Your task to perform on an android device: Add energizer triple a to the cart on amazon.com Image 0: 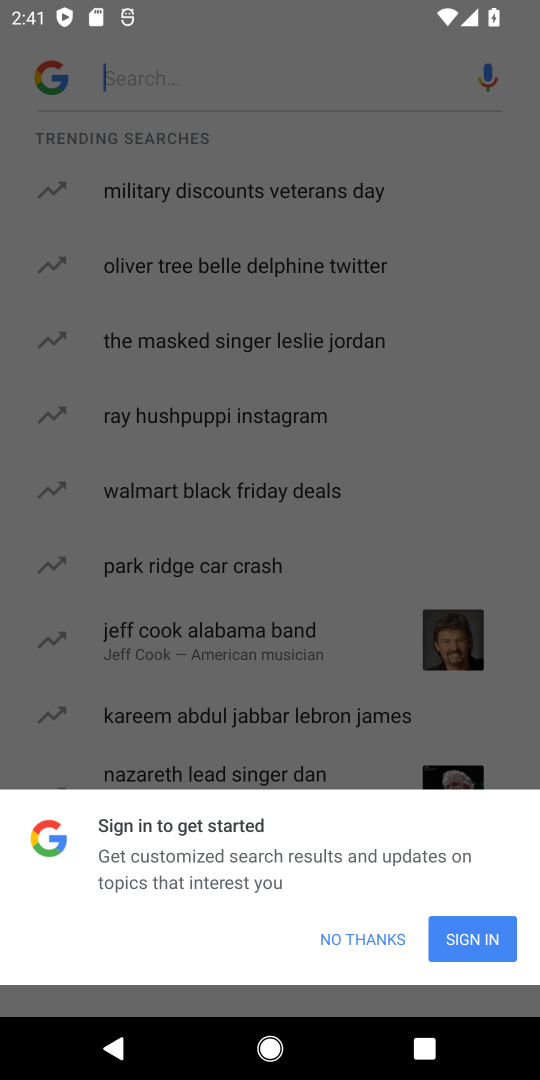
Step 0: press home button
Your task to perform on an android device: Add energizer triple a to the cart on amazon.com Image 1: 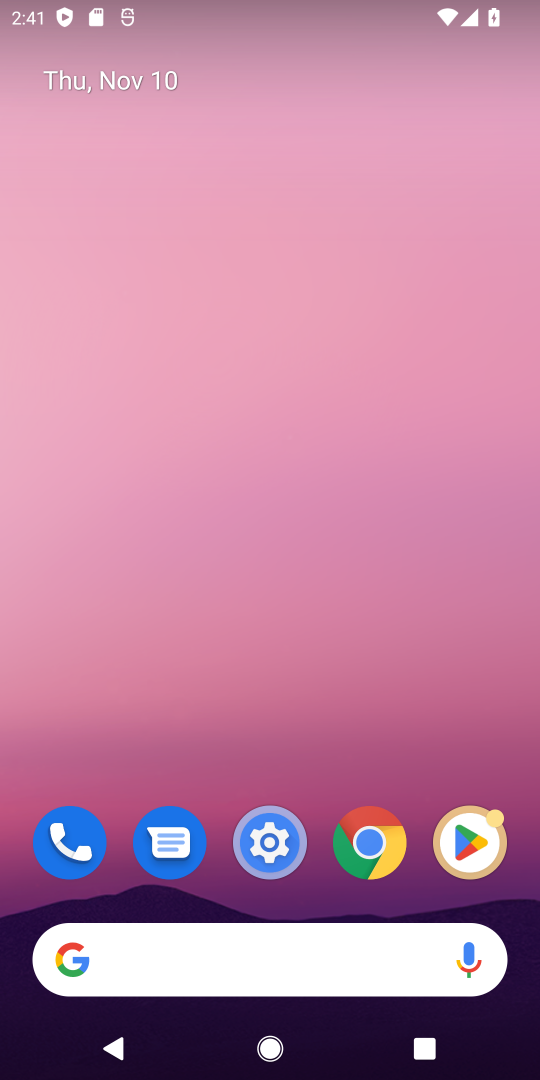
Step 1: click (114, 955)
Your task to perform on an android device: Add energizer triple a to the cart on amazon.com Image 2: 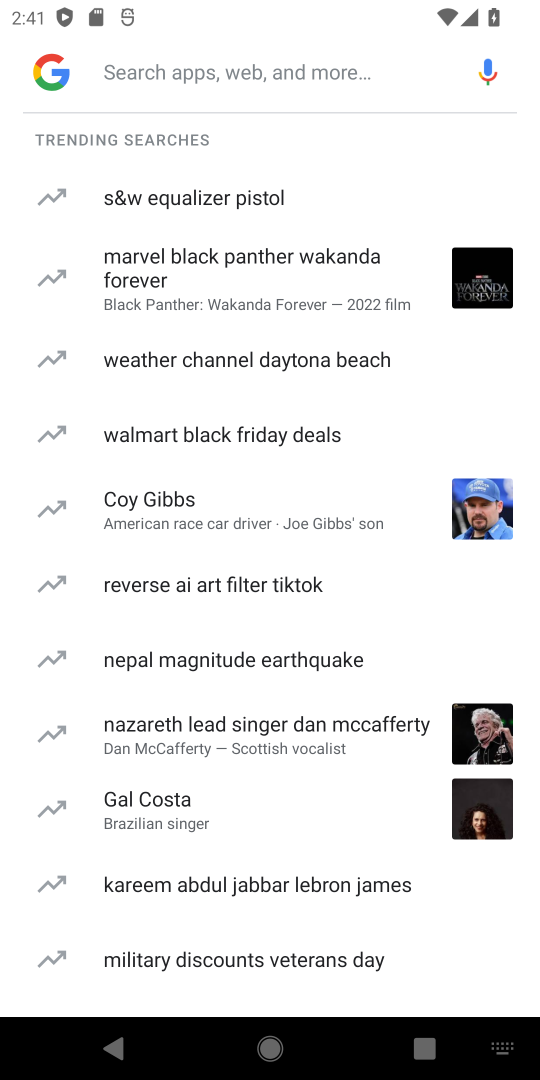
Step 2: type "amazon.com"
Your task to perform on an android device: Add energizer triple a to the cart on amazon.com Image 3: 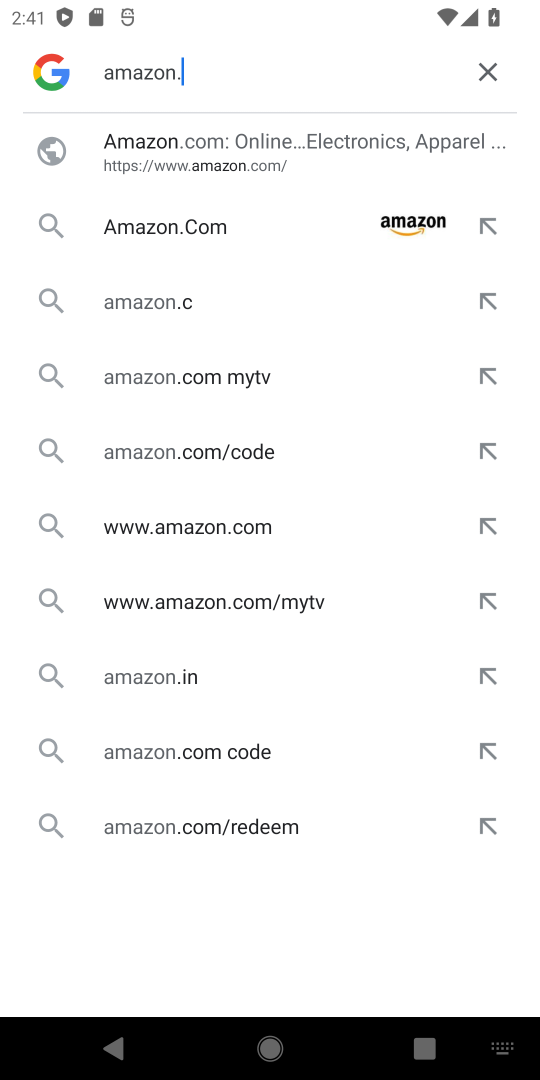
Step 3: press enter
Your task to perform on an android device: Add energizer triple a to the cart on amazon.com Image 4: 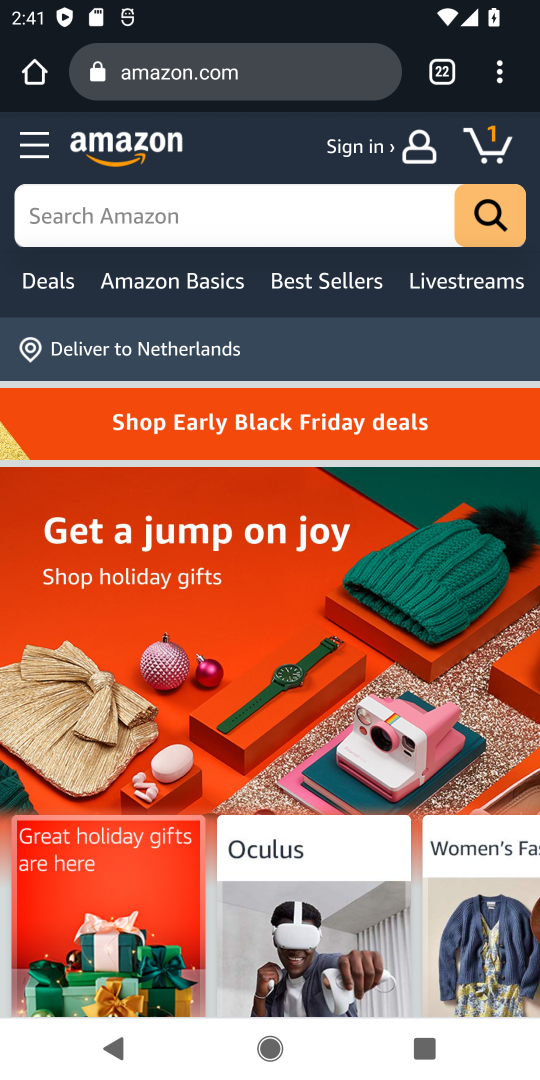
Step 4: click (71, 218)
Your task to perform on an android device: Add energizer triple a to the cart on amazon.com Image 5: 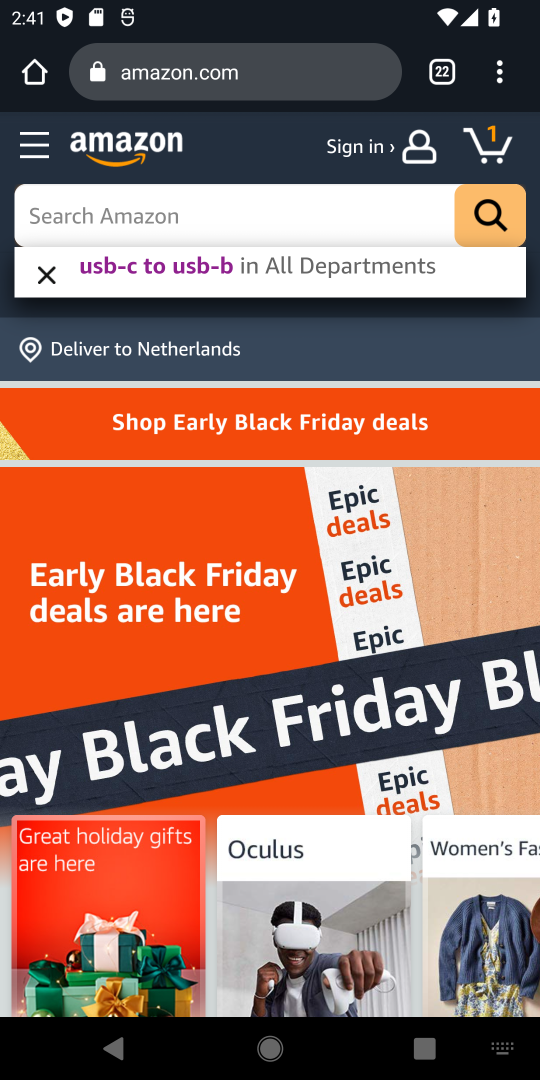
Step 5: type "energizer triple a"
Your task to perform on an android device: Add energizer triple a to the cart on amazon.com Image 6: 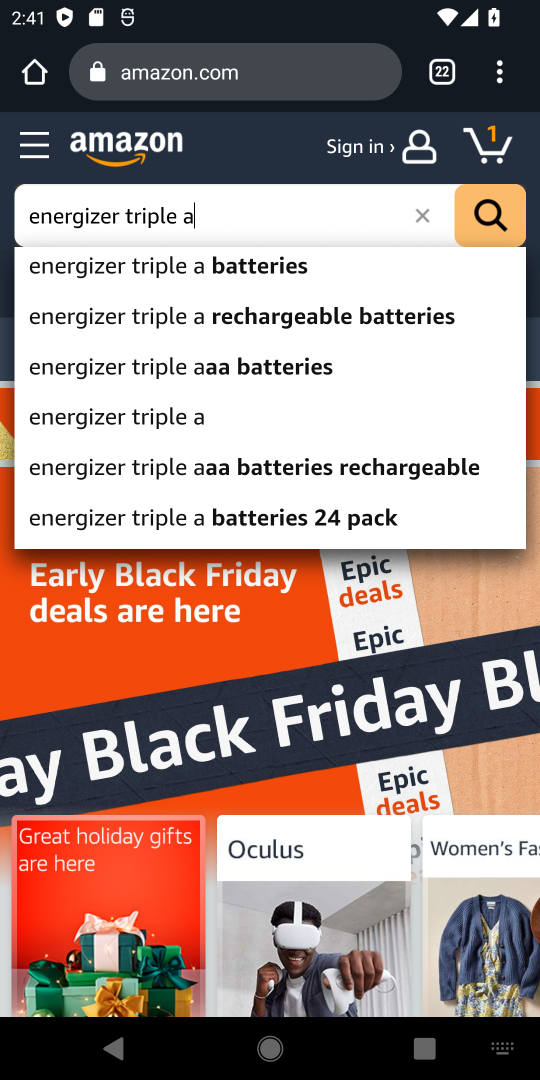
Step 6: click (494, 211)
Your task to perform on an android device: Add energizer triple a to the cart on amazon.com Image 7: 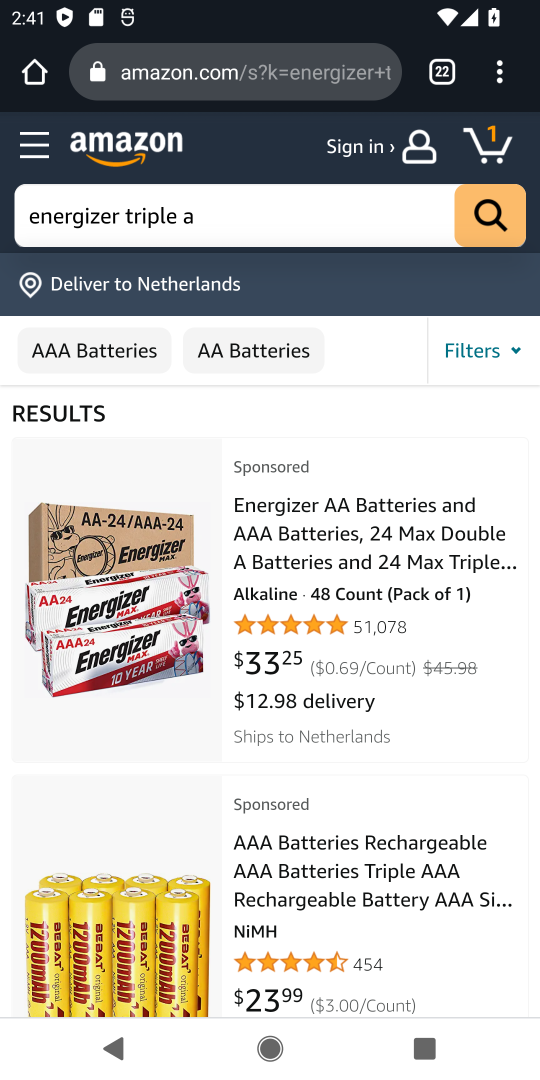
Step 7: click (315, 547)
Your task to perform on an android device: Add energizer triple a to the cart on amazon.com Image 8: 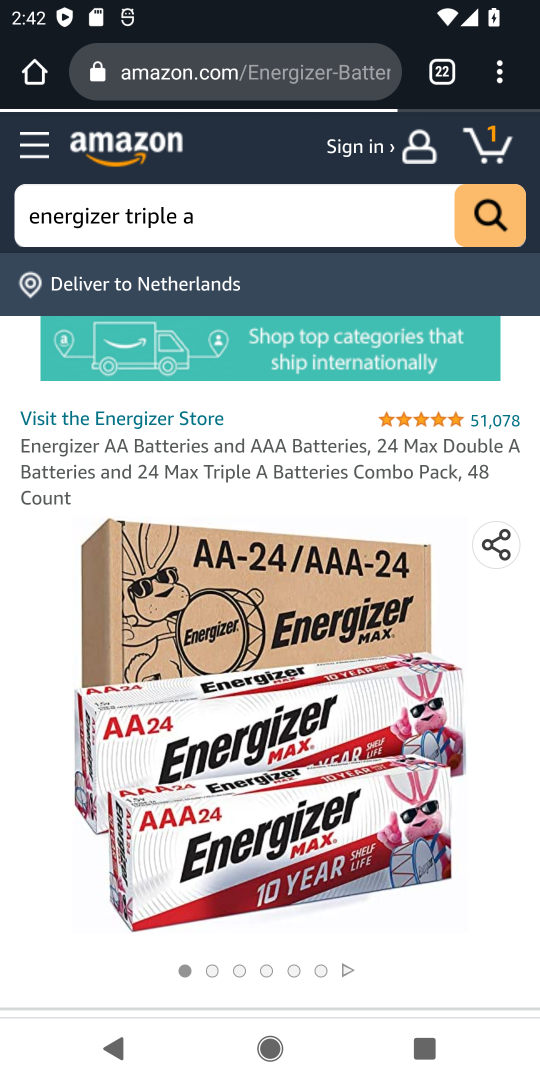
Step 8: drag from (314, 762) to (307, 404)
Your task to perform on an android device: Add energizer triple a to the cart on amazon.com Image 9: 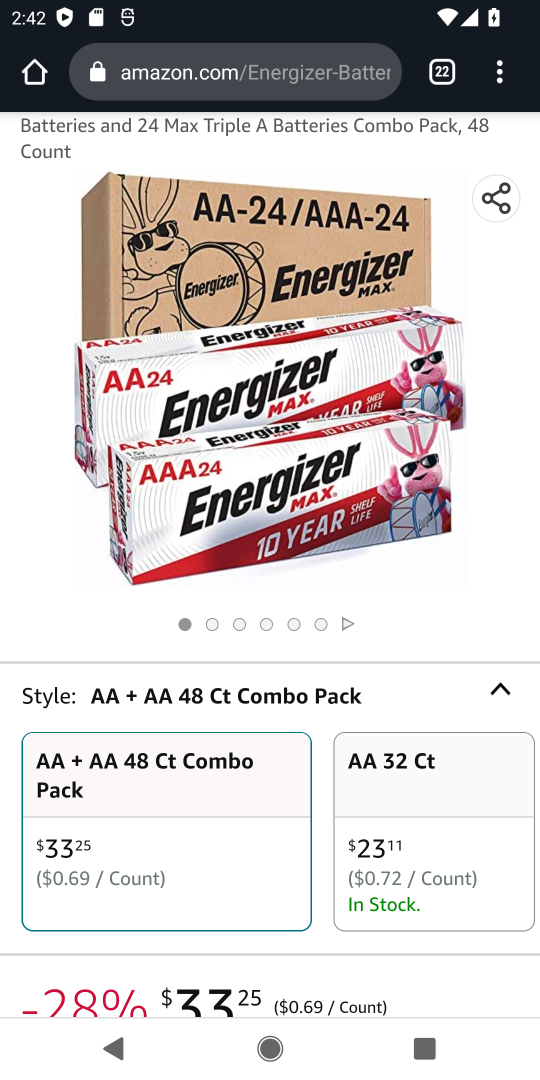
Step 9: drag from (235, 825) to (268, 276)
Your task to perform on an android device: Add energizer triple a to the cart on amazon.com Image 10: 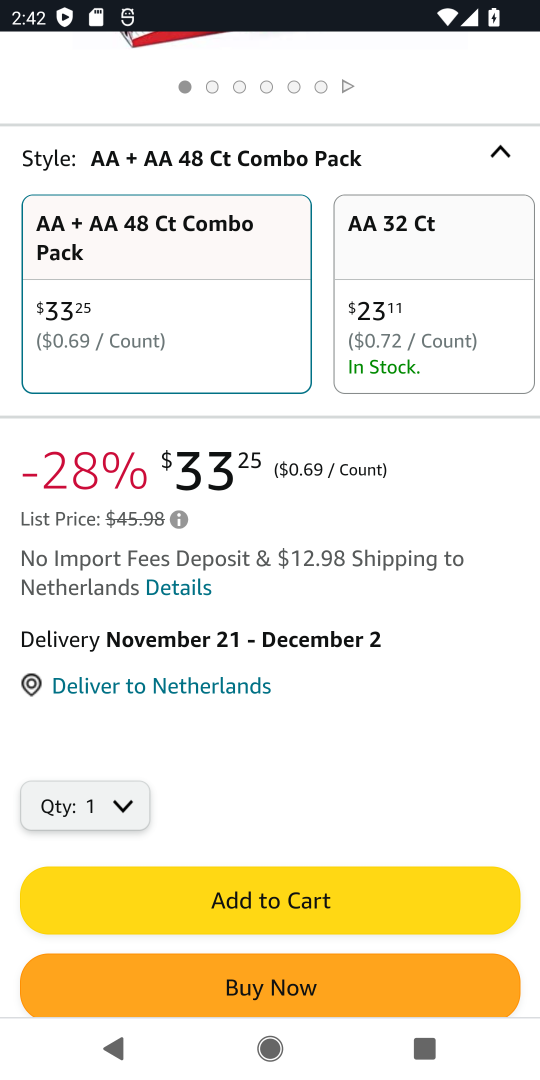
Step 10: drag from (349, 772) to (350, 295)
Your task to perform on an android device: Add energizer triple a to the cart on amazon.com Image 11: 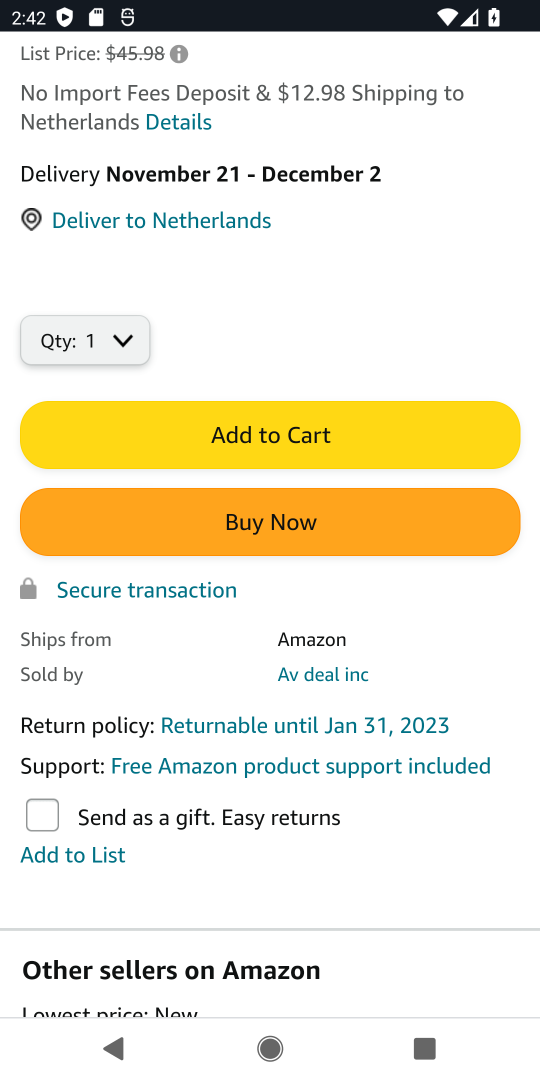
Step 11: click (230, 434)
Your task to perform on an android device: Add energizer triple a to the cart on amazon.com Image 12: 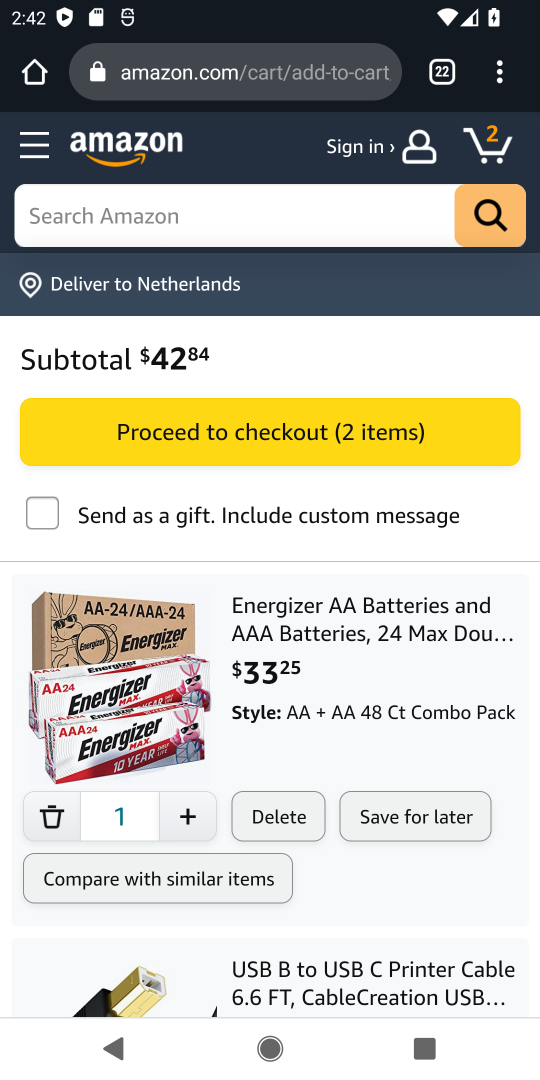
Step 12: task complete